Your task to perform on an android device: Go to accessibility settings Image 0: 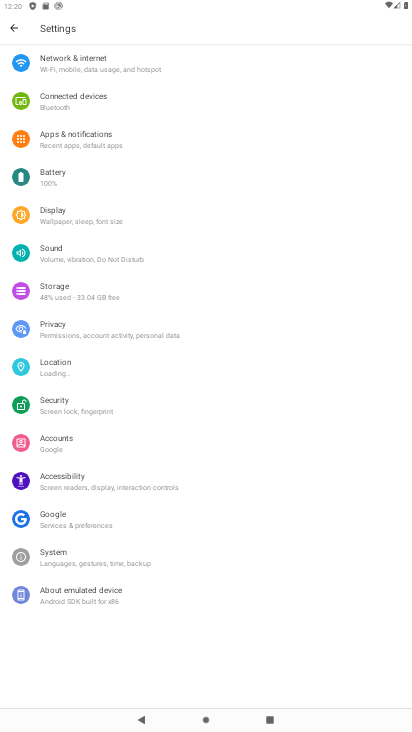
Step 0: press home button
Your task to perform on an android device: Go to accessibility settings Image 1: 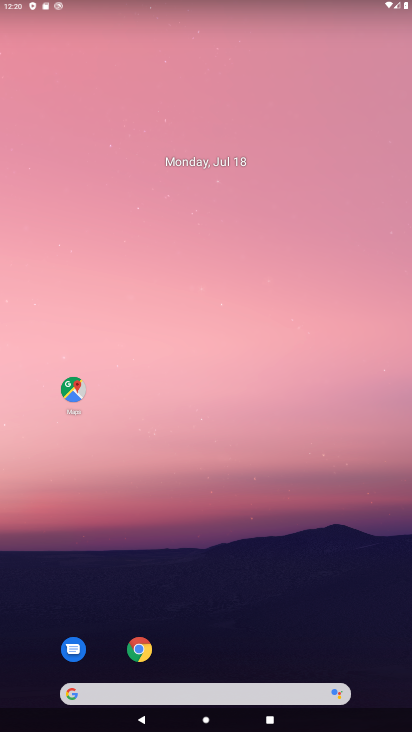
Step 1: drag from (385, 683) to (281, 144)
Your task to perform on an android device: Go to accessibility settings Image 2: 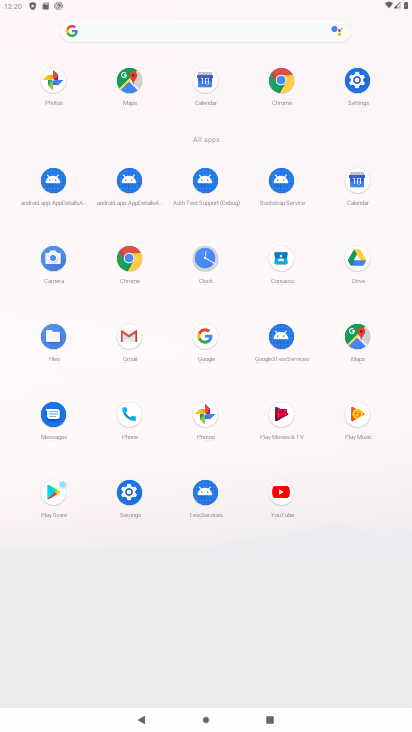
Step 2: click (366, 88)
Your task to perform on an android device: Go to accessibility settings Image 3: 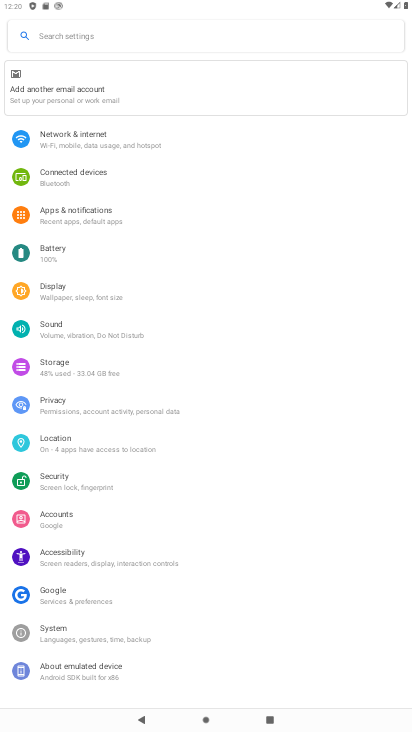
Step 3: click (89, 563)
Your task to perform on an android device: Go to accessibility settings Image 4: 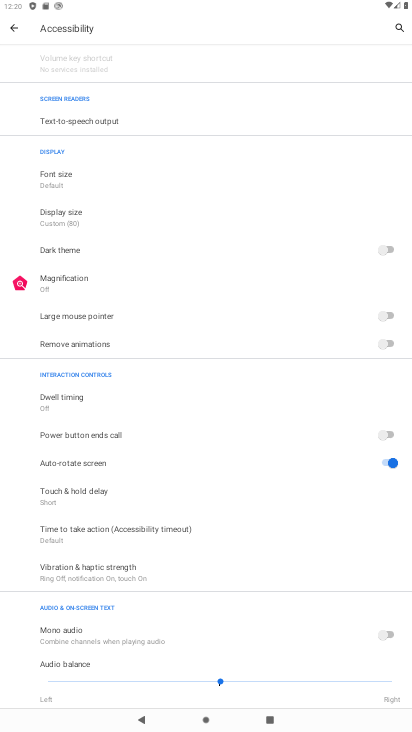
Step 4: task complete